Your task to perform on an android device: check google app version Image 0: 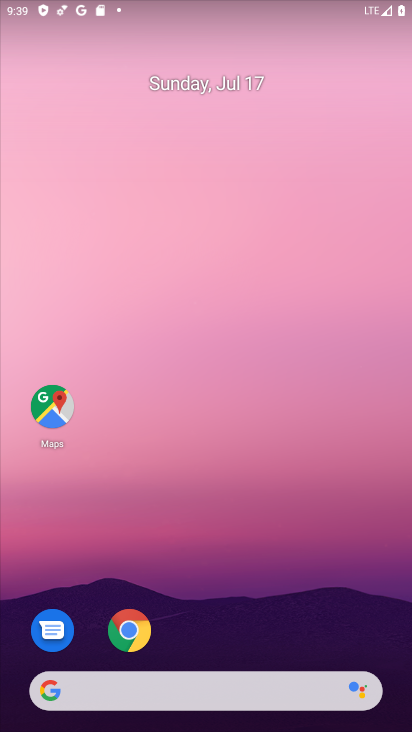
Step 0: drag from (216, 644) to (269, 166)
Your task to perform on an android device: check google app version Image 1: 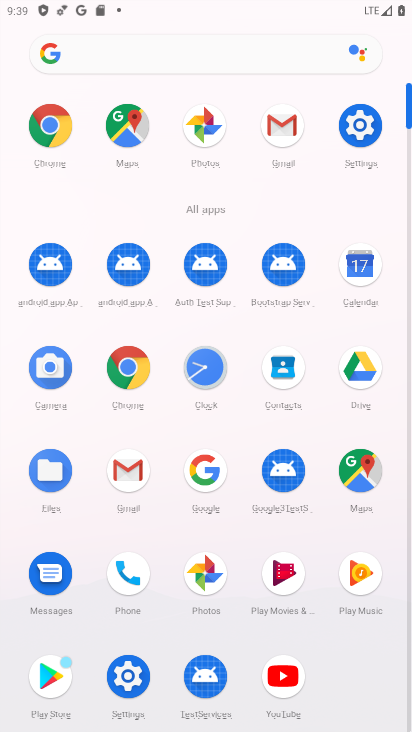
Step 1: click (199, 462)
Your task to perform on an android device: check google app version Image 2: 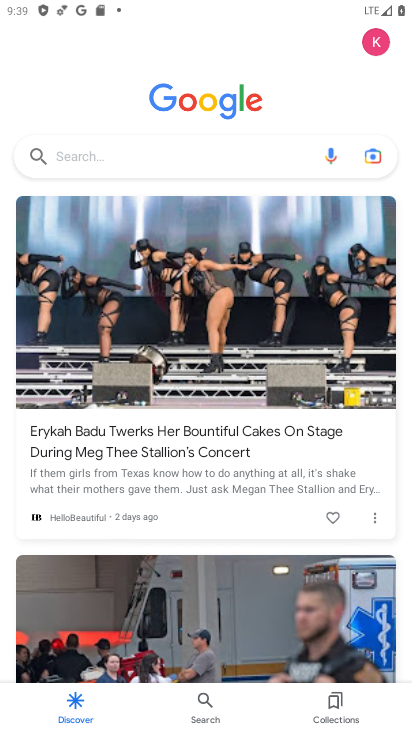
Step 2: click (370, 39)
Your task to perform on an android device: check google app version Image 3: 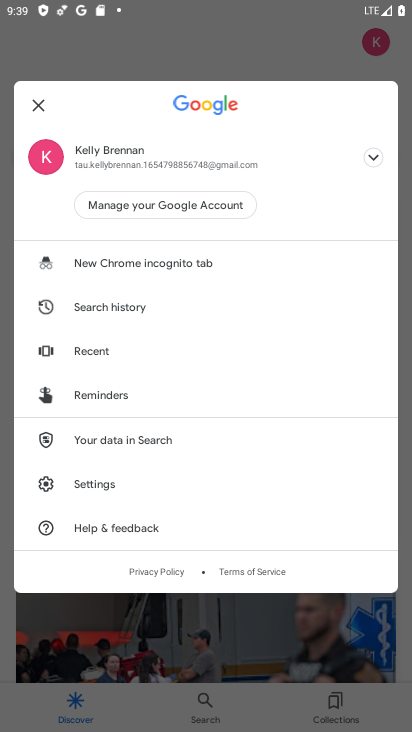
Step 3: click (118, 484)
Your task to perform on an android device: check google app version Image 4: 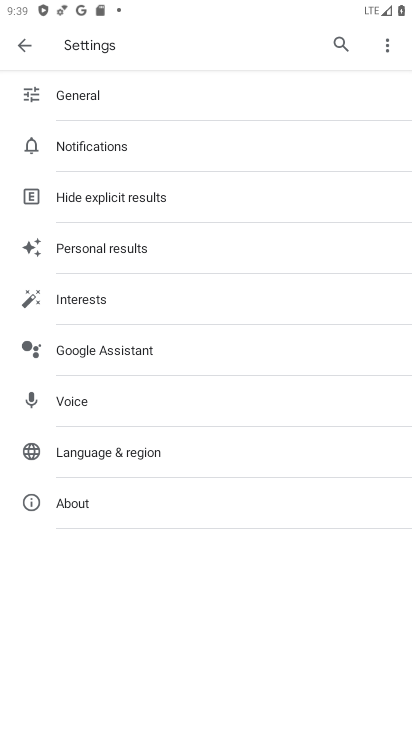
Step 4: click (111, 507)
Your task to perform on an android device: check google app version Image 5: 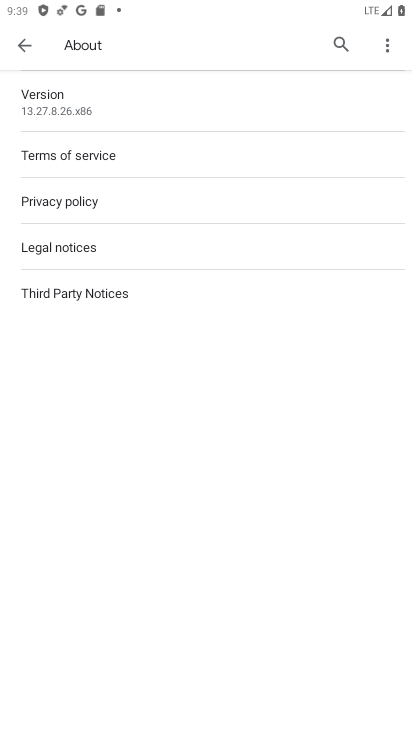
Step 5: task complete